Your task to perform on an android device: Go to Yahoo.com Image 0: 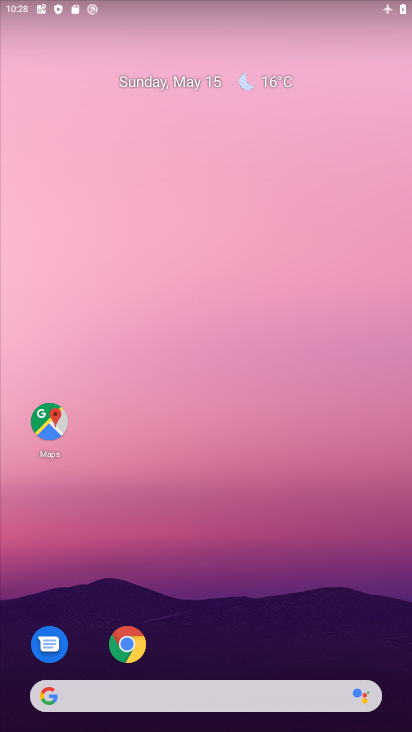
Step 0: drag from (387, 7) to (400, 460)
Your task to perform on an android device: Go to Yahoo.com Image 1: 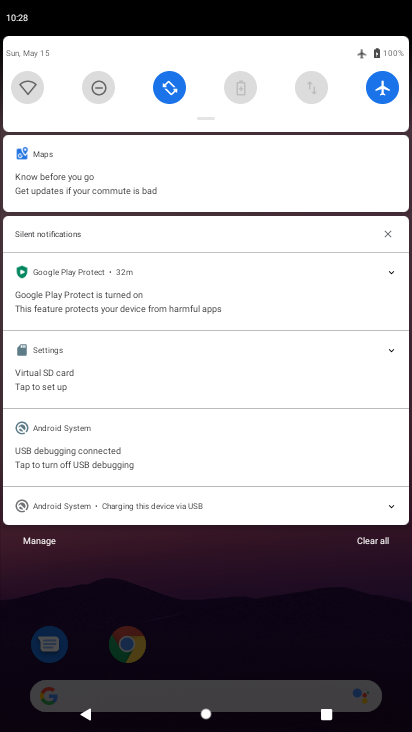
Step 1: click (379, 81)
Your task to perform on an android device: Go to Yahoo.com Image 2: 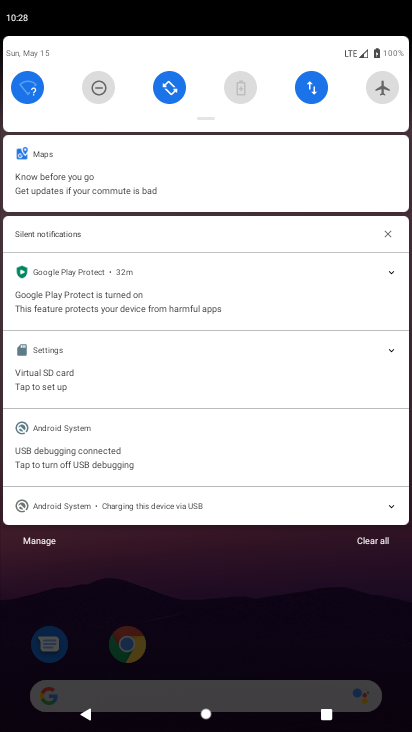
Step 2: drag from (340, 585) to (314, 206)
Your task to perform on an android device: Go to Yahoo.com Image 3: 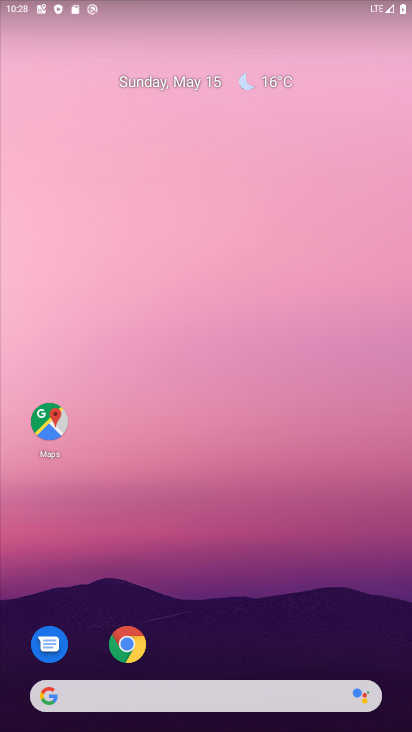
Step 3: click (129, 654)
Your task to perform on an android device: Go to Yahoo.com Image 4: 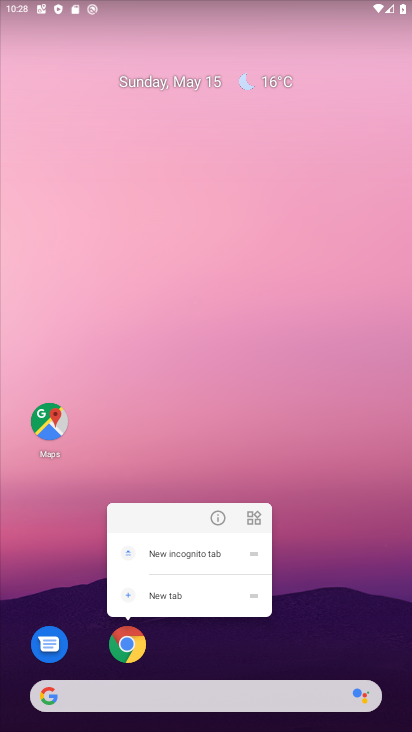
Step 4: click (134, 656)
Your task to perform on an android device: Go to Yahoo.com Image 5: 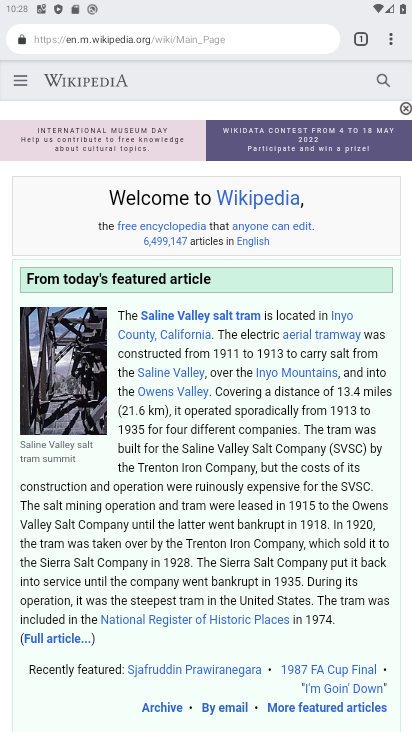
Step 5: click (364, 33)
Your task to perform on an android device: Go to Yahoo.com Image 6: 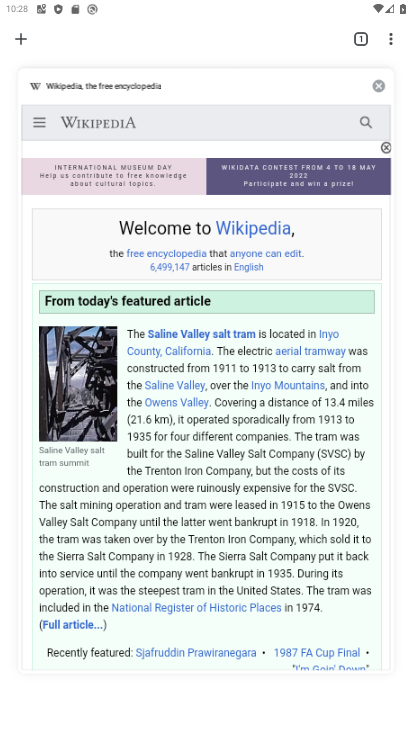
Step 6: click (376, 87)
Your task to perform on an android device: Go to Yahoo.com Image 7: 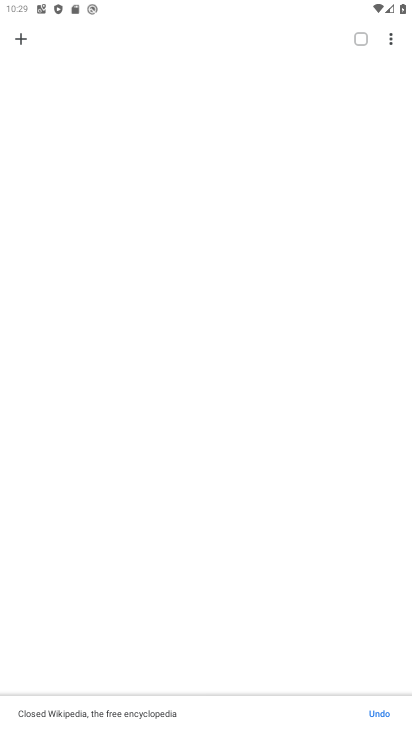
Step 7: click (21, 30)
Your task to perform on an android device: Go to Yahoo.com Image 8: 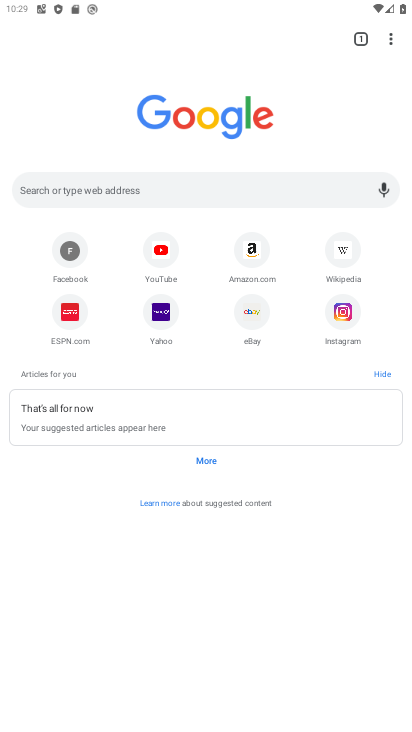
Step 8: click (155, 317)
Your task to perform on an android device: Go to Yahoo.com Image 9: 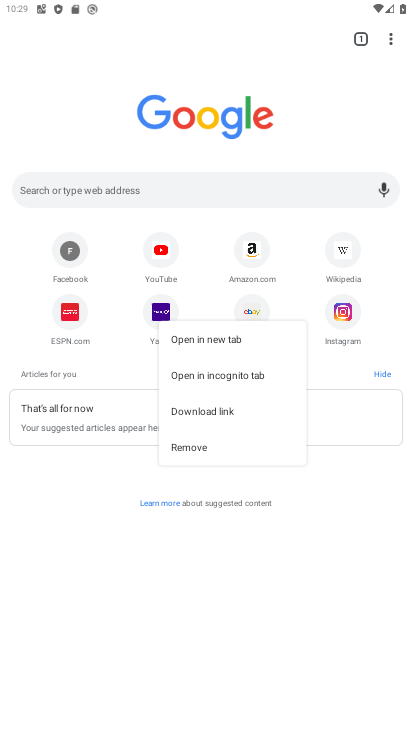
Step 9: click (167, 316)
Your task to perform on an android device: Go to Yahoo.com Image 10: 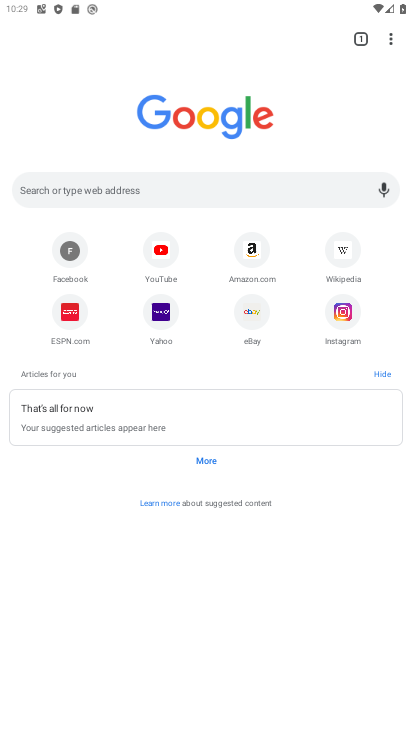
Step 10: click (167, 306)
Your task to perform on an android device: Go to Yahoo.com Image 11: 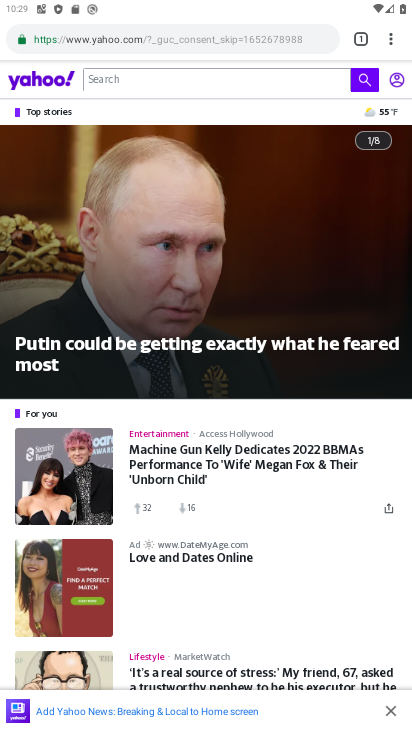
Step 11: task complete